Your task to perform on an android device: Open Maps and search for coffee Image 0: 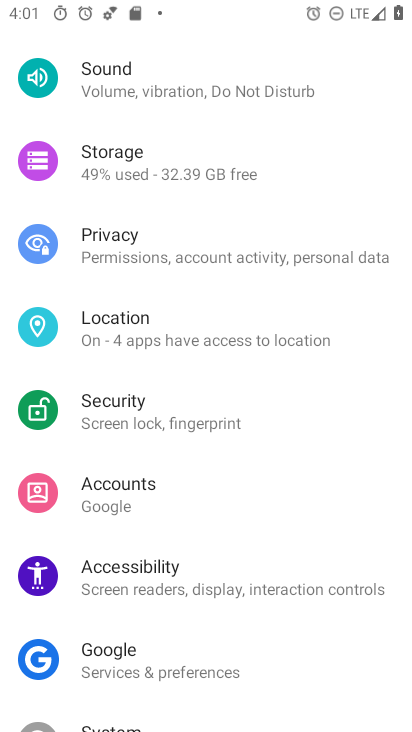
Step 0: press home button
Your task to perform on an android device: Open Maps and search for coffee Image 1: 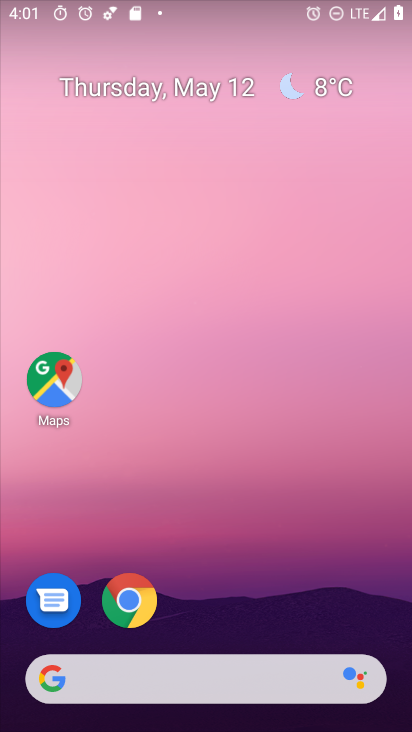
Step 1: drag from (205, 724) to (204, 208)
Your task to perform on an android device: Open Maps and search for coffee Image 2: 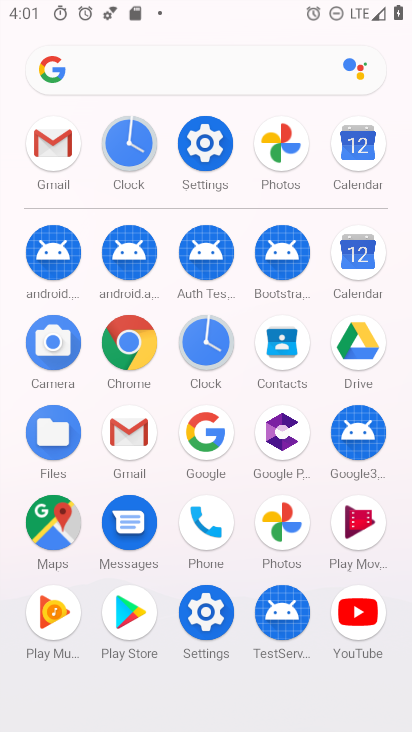
Step 2: click (52, 524)
Your task to perform on an android device: Open Maps and search for coffee Image 3: 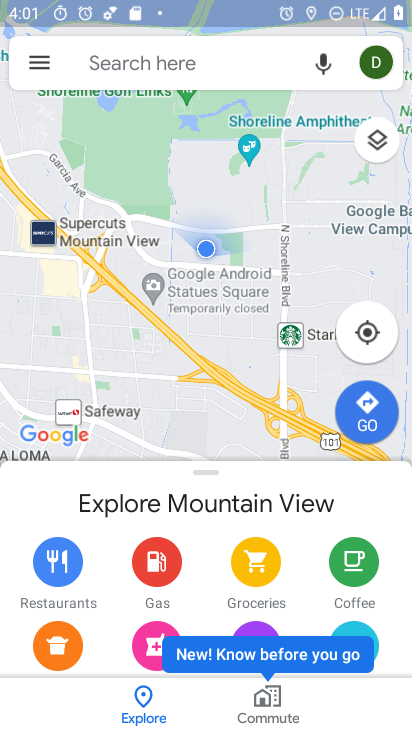
Step 3: click (189, 65)
Your task to perform on an android device: Open Maps and search for coffee Image 4: 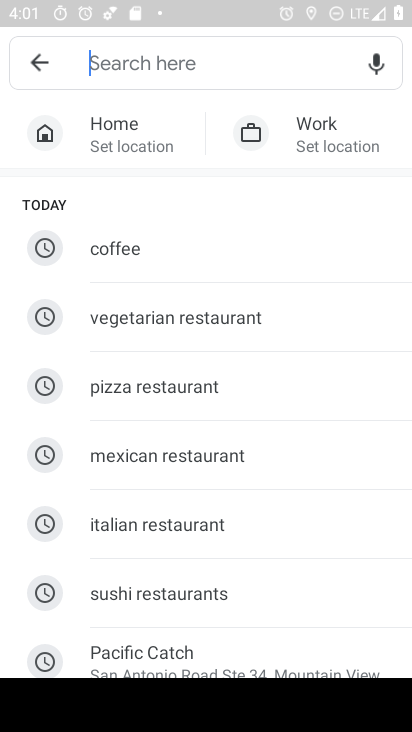
Step 4: type "coffee"
Your task to perform on an android device: Open Maps and search for coffee Image 5: 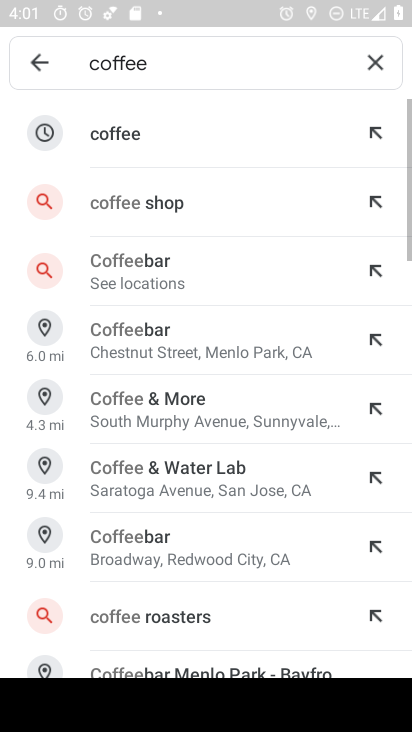
Step 5: click (114, 130)
Your task to perform on an android device: Open Maps and search for coffee Image 6: 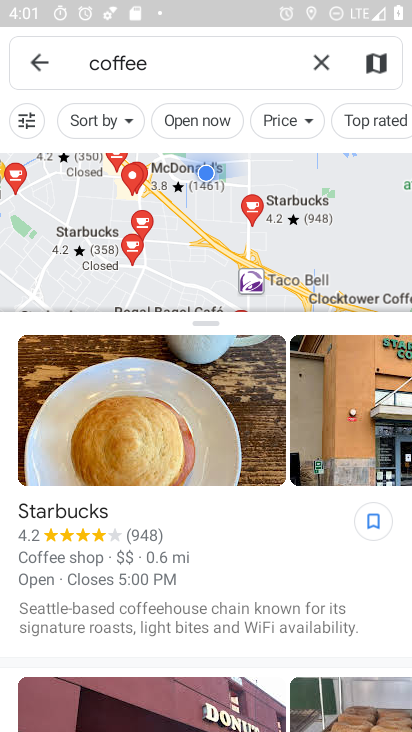
Step 6: task complete